Your task to perform on an android device: Open the settings Image 0: 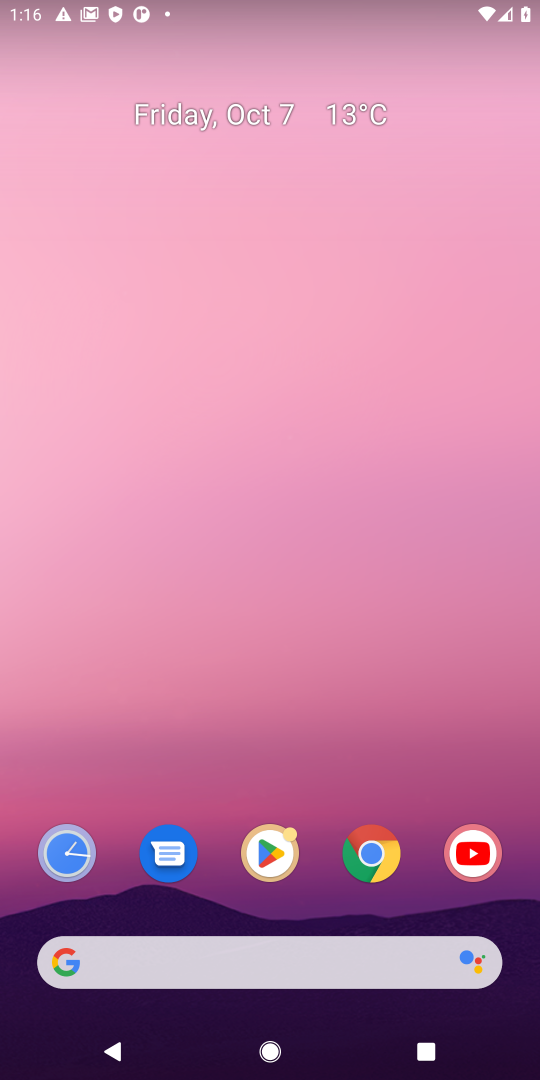
Step 0: drag from (302, 896) to (312, 2)
Your task to perform on an android device: Open the settings Image 1: 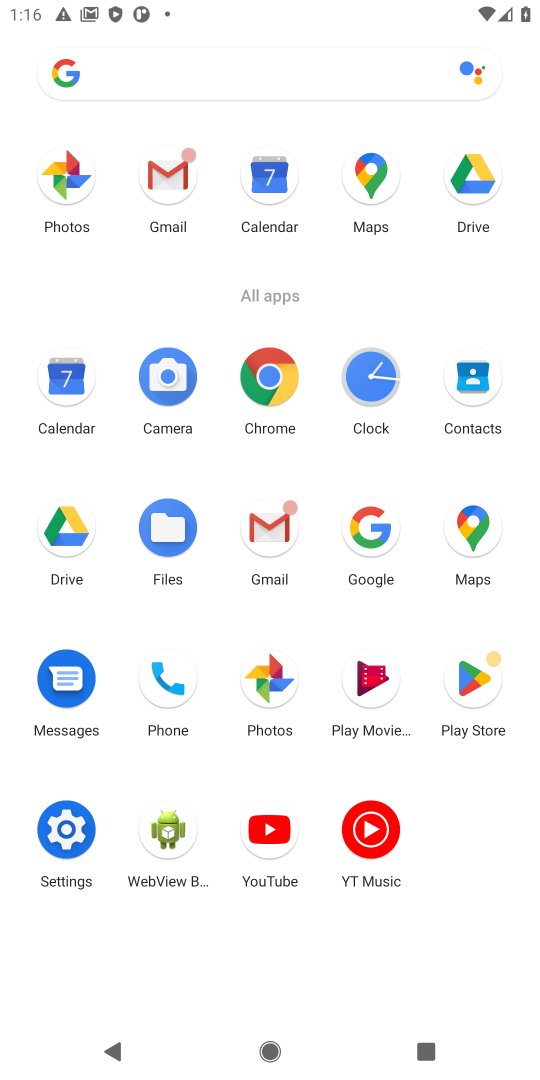
Step 1: click (77, 813)
Your task to perform on an android device: Open the settings Image 2: 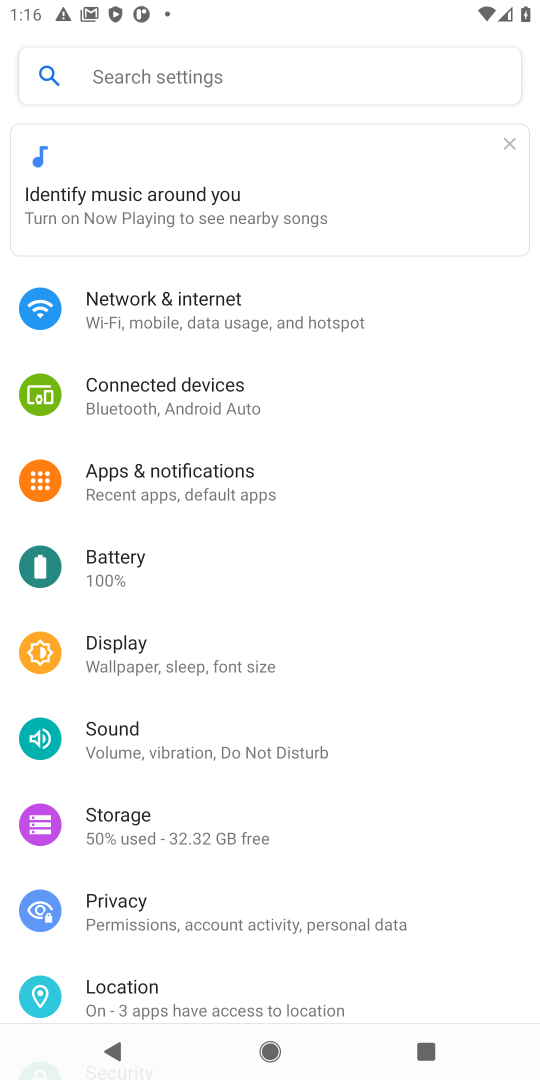
Step 2: task complete